Your task to perform on an android device: Clear the cart on target.com. Search for "asus zenbook" on target.com, select the first entry, add it to the cart, then select checkout. Image 0: 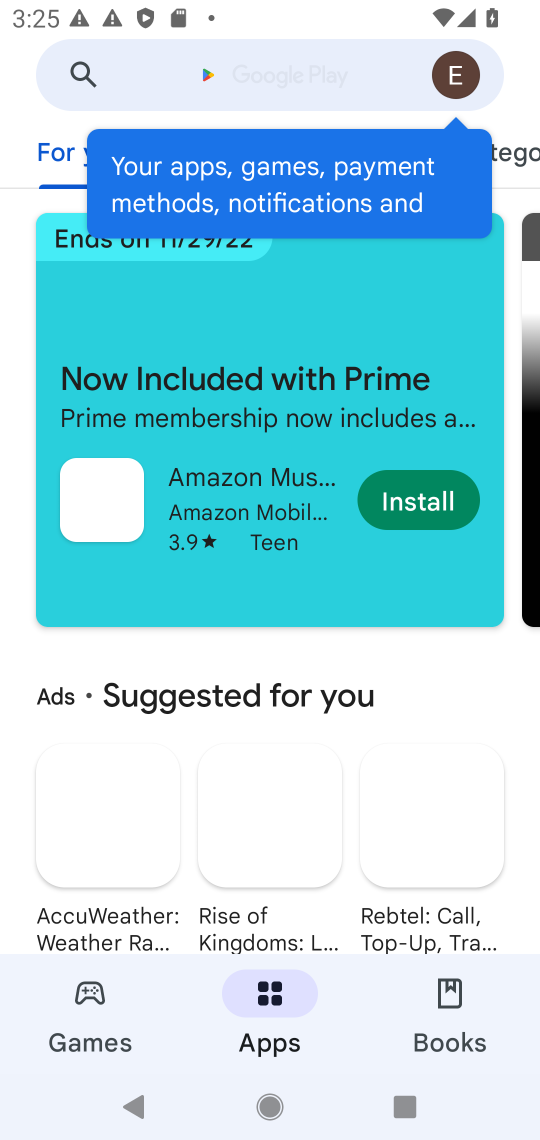
Step 0: press home button
Your task to perform on an android device: Clear the cart on target.com. Search for "asus zenbook" on target.com, select the first entry, add it to the cart, then select checkout. Image 1: 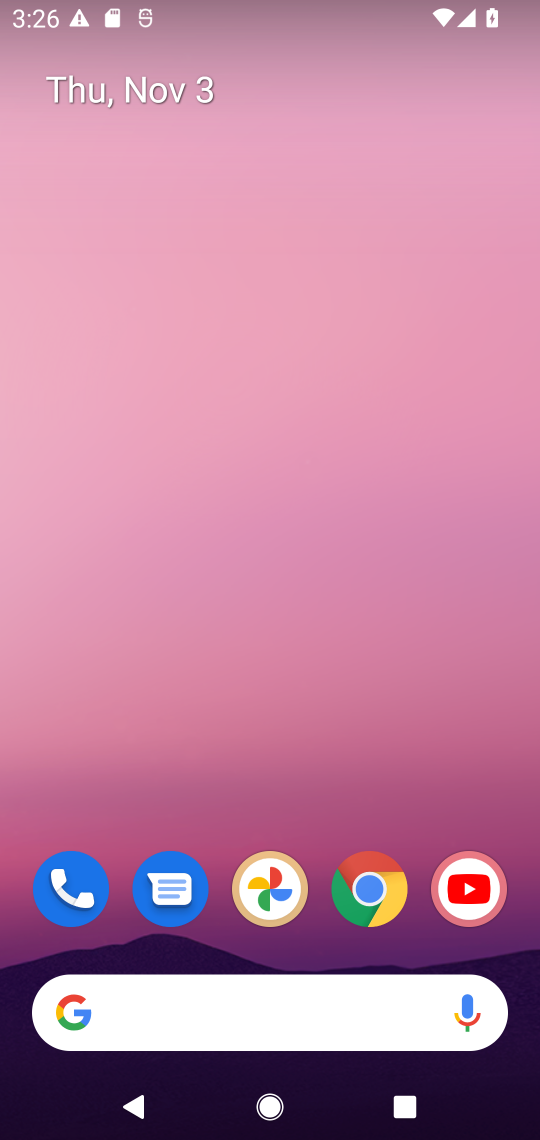
Step 1: click (370, 893)
Your task to perform on an android device: Clear the cart on target.com. Search for "asus zenbook" on target.com, select the first entry, add it to the cart, then select checkout. Image 2: 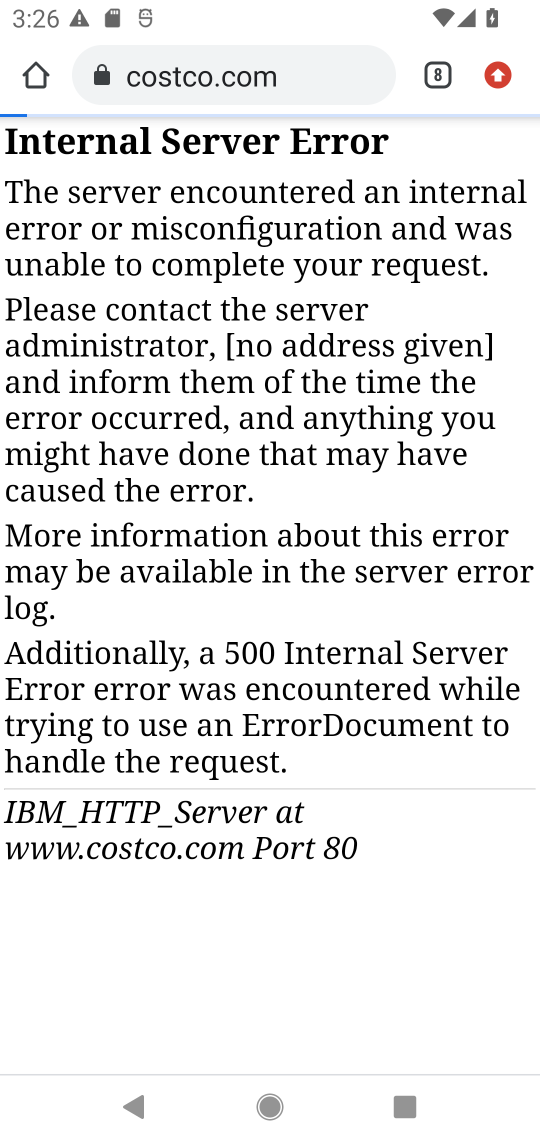
Step 2: click (435, 87)
Your task to perform on an android device: Clear the cart on target.com. Search for "asus zenbook" on target.com, select the first entry, add it to the cart, then select checkout. Image 3: 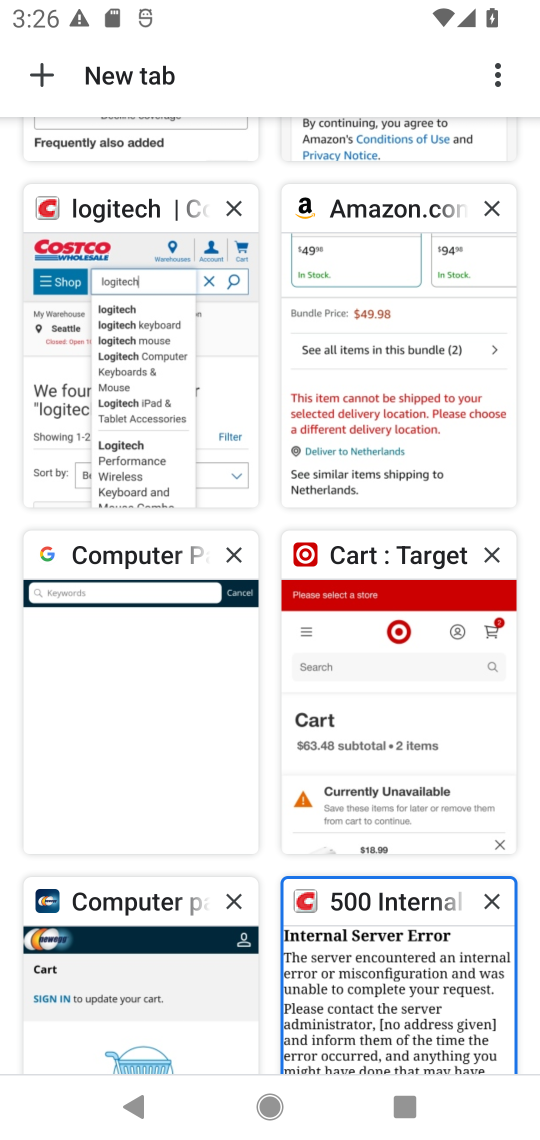
Step 3: drag from (177, 223) to (165, 1130)
Your task to perform on an android device: Clear the cart on target.com. Search for "asus zenbook" on target.com, select the first entry, add it to the cart, then select checkout. Image 4: 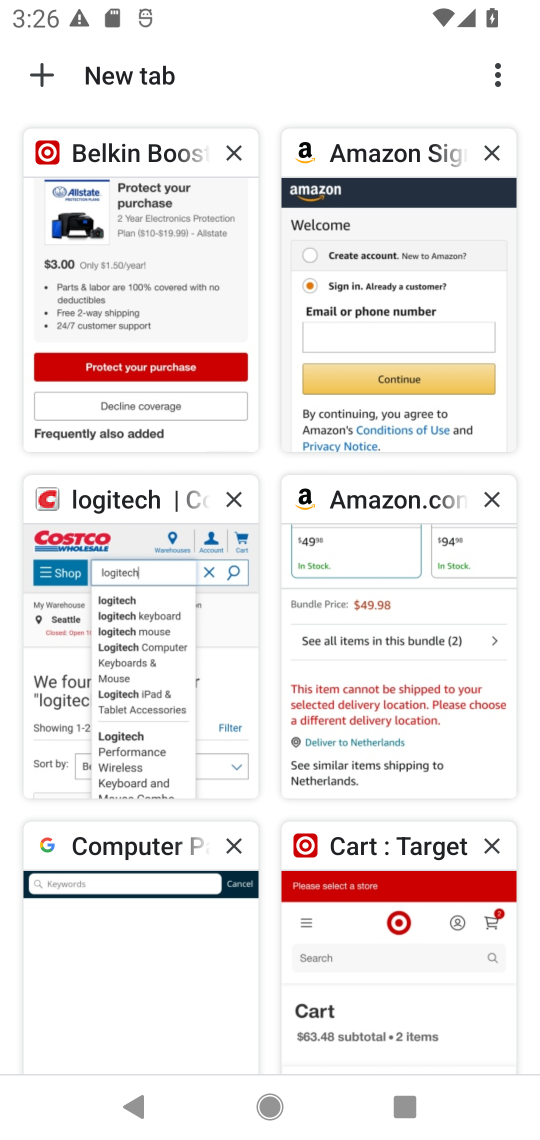
Step 4: click (43, 67)
Your task to perform on an android device: Clear the cart on target.com. Search for "asus zenbook" on target.com, select the first entry, add it to the cart, then select checkout. Image 5: 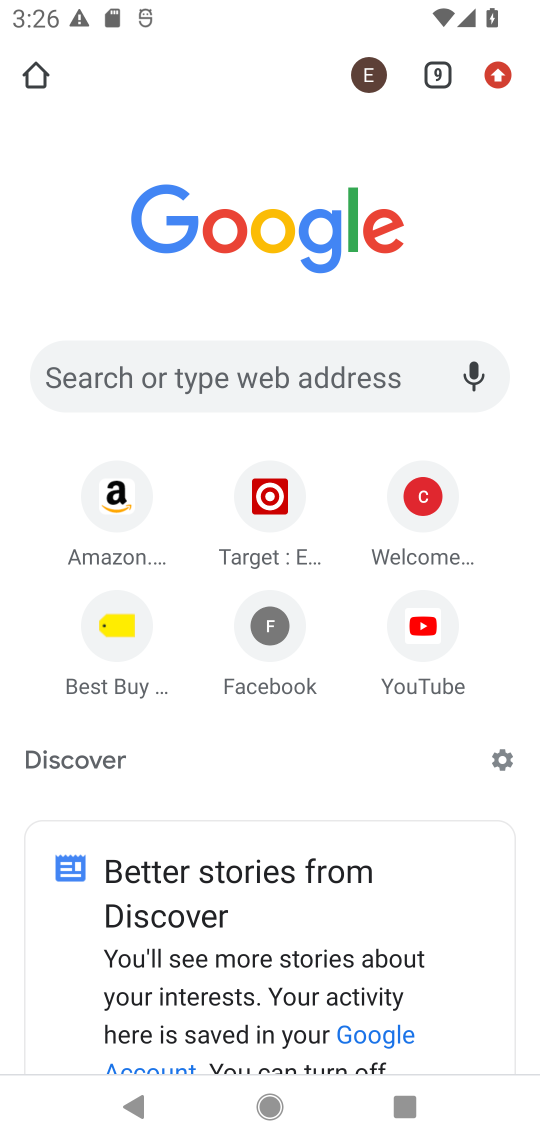
Step 5: click (223, 366)
Your task to perform on an android device: Clear the cart on target.com. Search for "asus zenbook" on target.com, select the first entry, add it to the cart, then select checkout. Image 6: 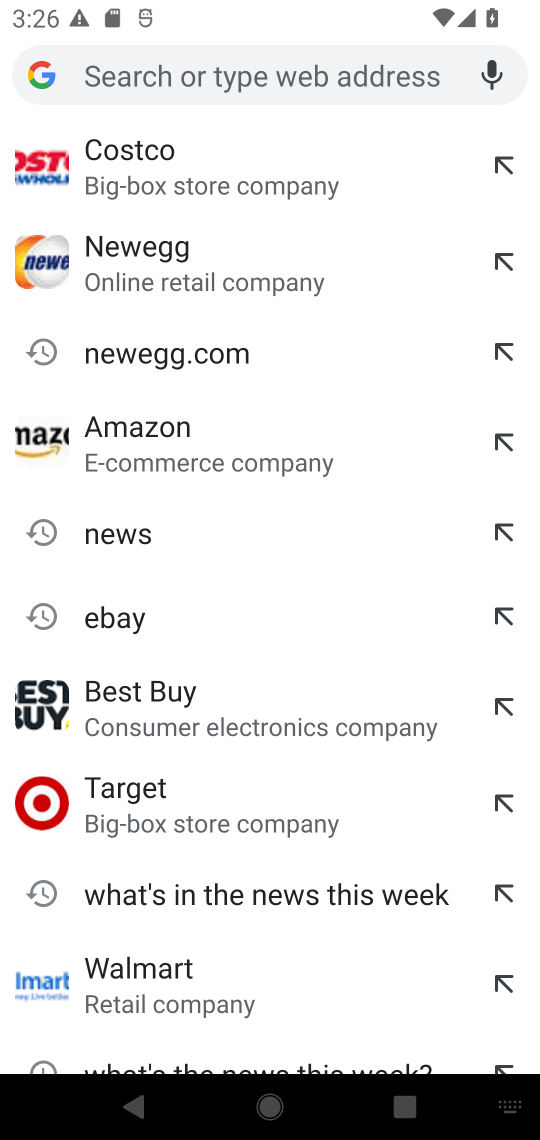
Step 6: type "target.com"
Your task to perform on an android device: Clear the cart on target.com. Search for "asus zenbook" on target.com, select the first entry, add it to the cart, then select checkout. Image 7: 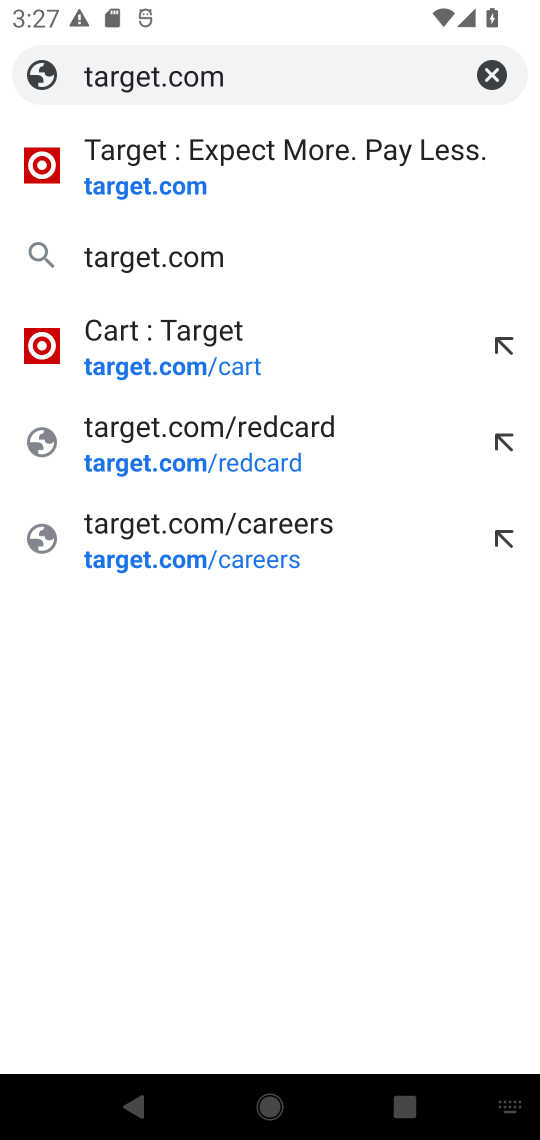
Step 7: click (141, 151)
Your task to perform on an android device: Clear the cart on target.com. Search for "asus zenbook" on target.com, select the first entry, add it to the cart, then select checkout. Image 8: 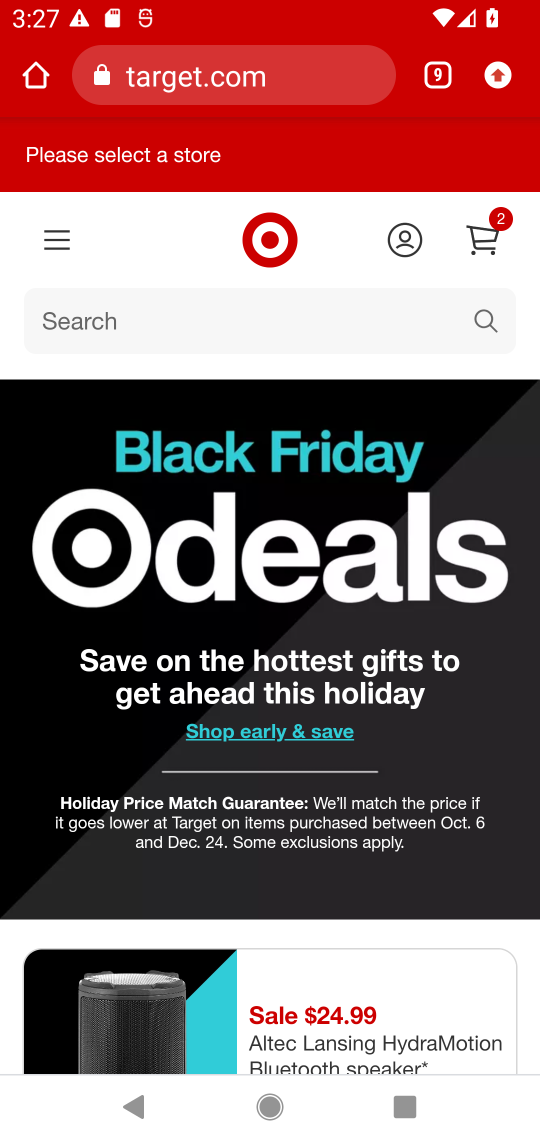
Step 8: drag from (228, 888) to (358, 310)
Your task to perform on an android device: Clear the cart on target.com. Search for "asus zenbook" on target.com, select the first entry, add it to the cart, then select checkout. Image 9: 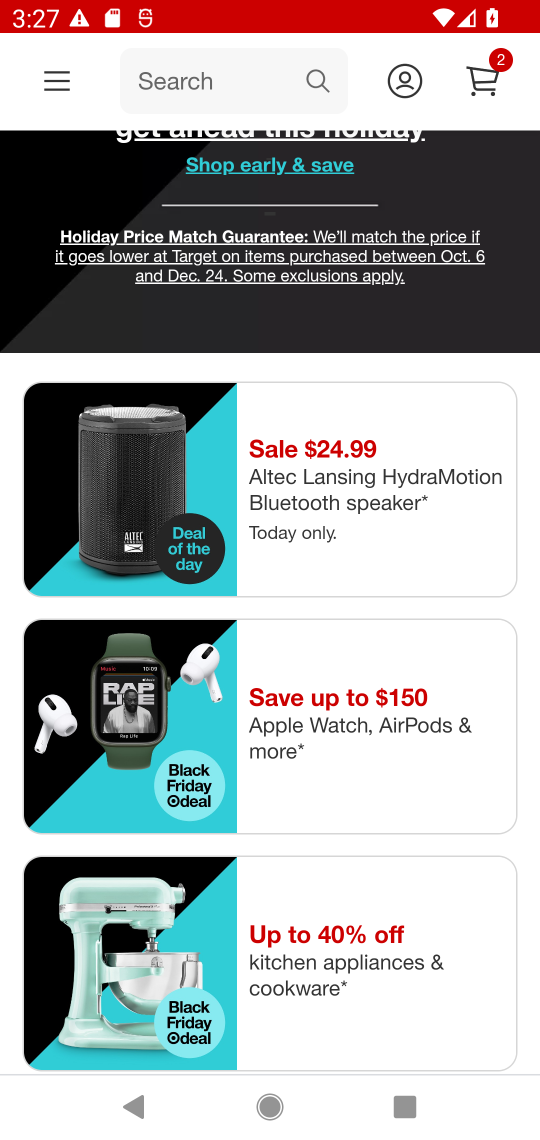
Step 9: drag from (298, 266) to (355, 1065)
Your task to perform on an android device: Clear the cart on target.com. Search for "asus zenbook" on target.com, select the first entry, add it to the cart, then select checkout. Image 10: 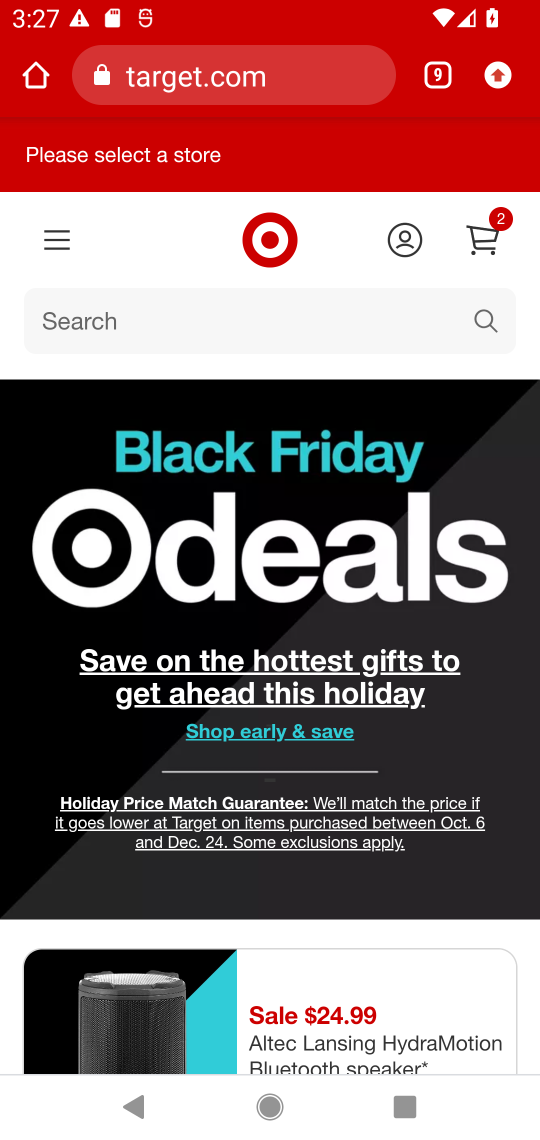
Step 10: click (184, 315)
Your task to perform on an android device: Clear the cart on target.com. Search for "asus zenbook" on target.com, select the first entry, add it to the cart, then select checkout. Image 11: 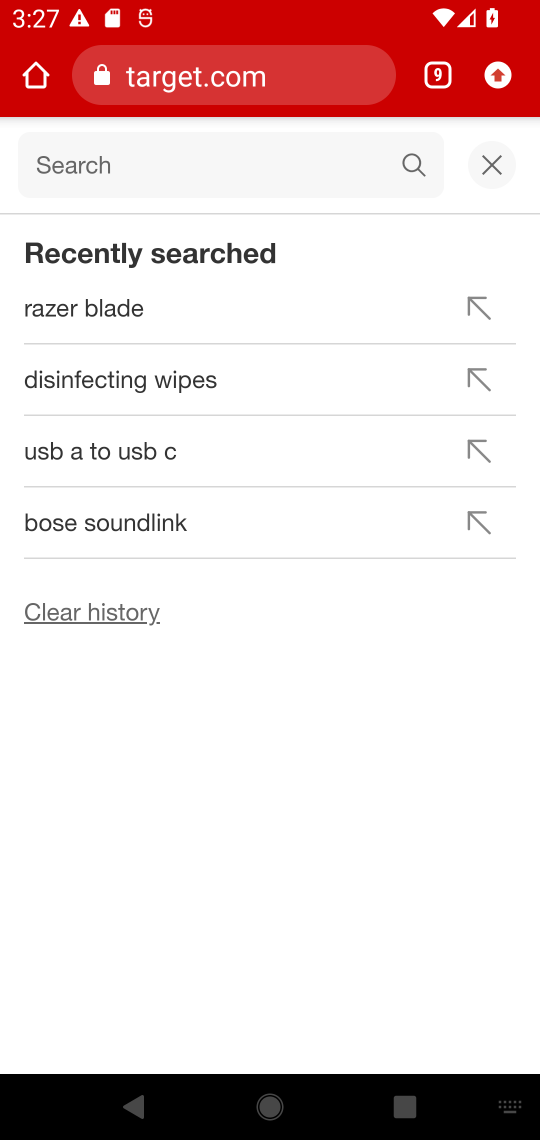
Step 11: click (76, 140)
Your task to perform on an android device: Clear the cart on target.com. Search for "asus zenbook" on target.com, select the first entry, add it to the cart, then select checkout. Image 12: 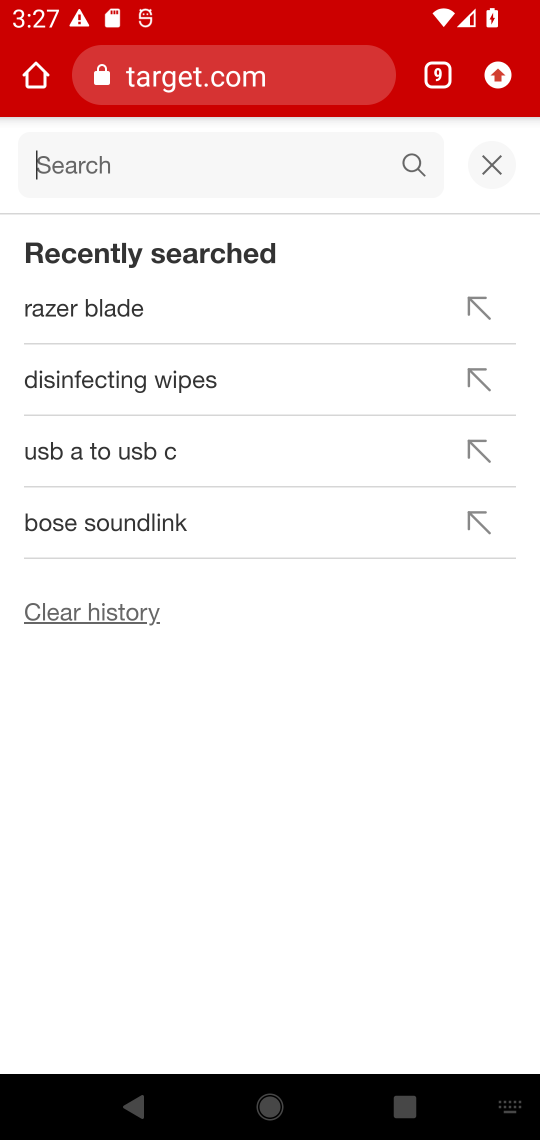
Step 12: type "asus zenbook"
Your task to perform on an android device: Clear the cart on target.com. Search for "asus zenbook" on target.com, select the first entry, add it to the cart, then select checkout. Image 13: 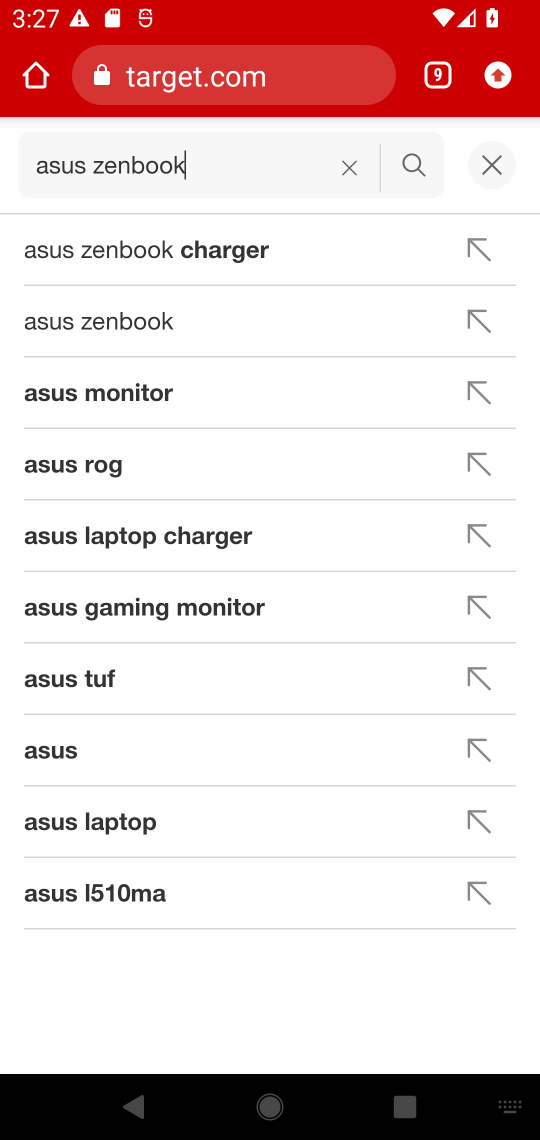
Step 13: click (213, 310)
Your task to perform on an android device: Clear the cart on target.com. Search for "asus zenbook" on target.com, select the first entry, add it to the cart, then select checkout. Image 14: 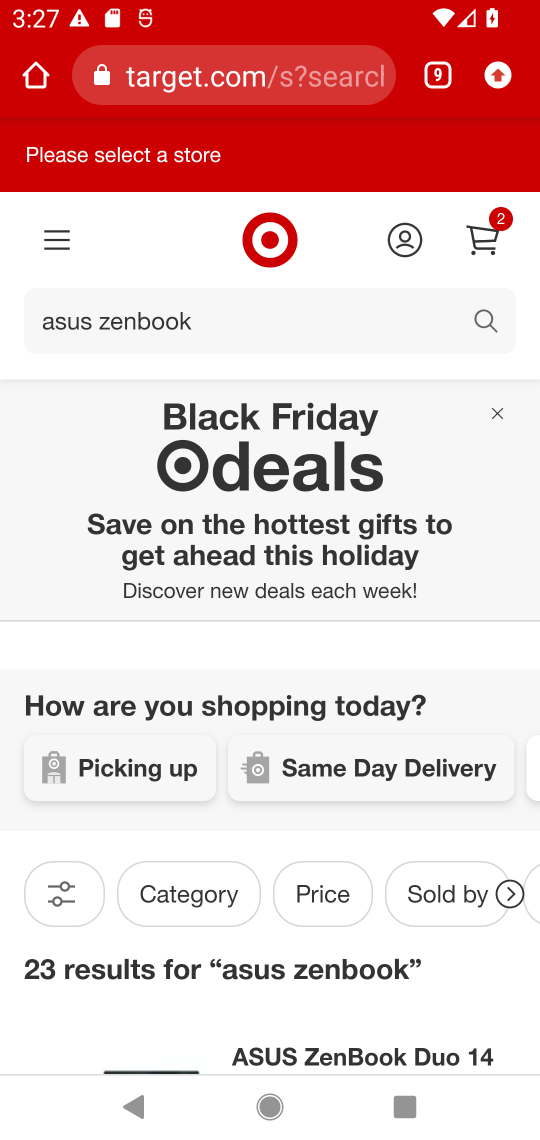
Step 14: drag from (302, 949) to (408, 285)
Your task to perform on an android device: Clear the cart on target.com. Search for "asus zenbook" on target.com, select the first entry, add it to the cart, then select checkout. Image 15: 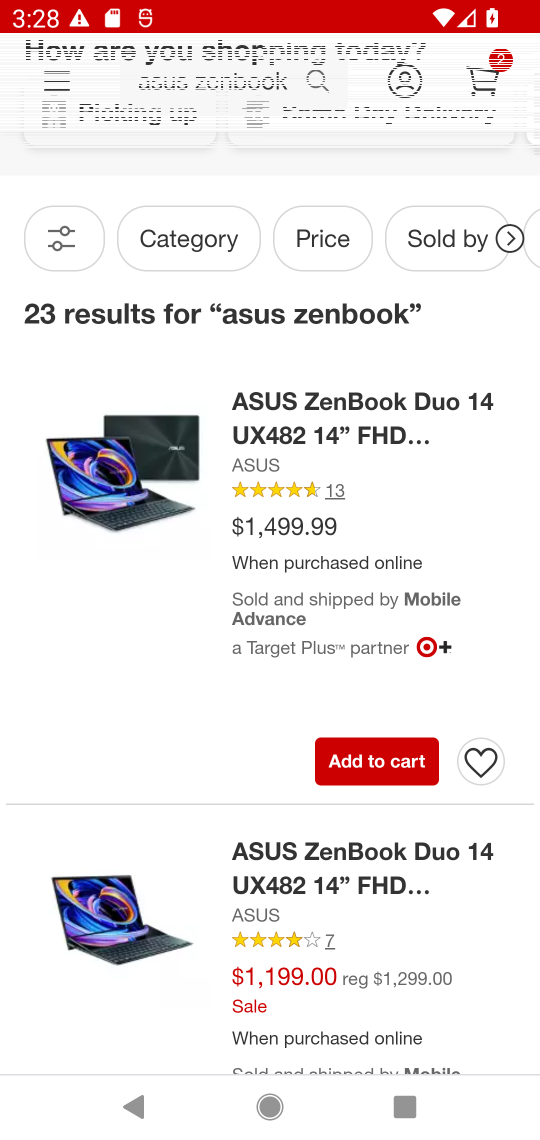
Step 15: click (368, 767)
Your task to perform on an android device: Clear the cart on target.com. Search for "asus zenbook" on target.com, select the first entry, add it to the cart, then select checkout. Image 16: 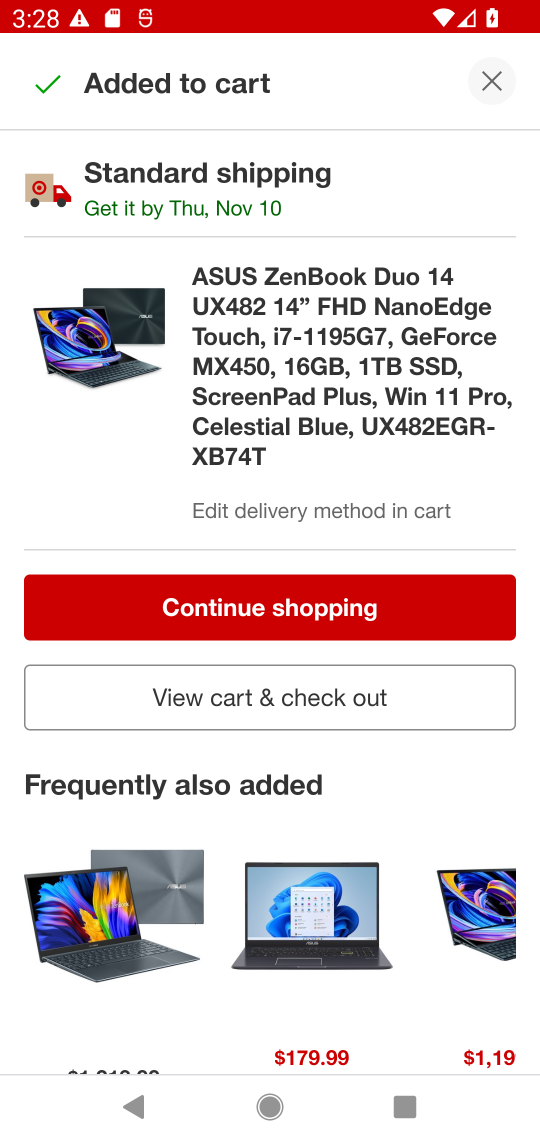
Step 16: click (296, 694)
Your task to perform on an android device: Clear the cart on target.com. Search for "asus zenbook" on target.com, select the first entry, add it to the cart, then select checkout. Image 17: 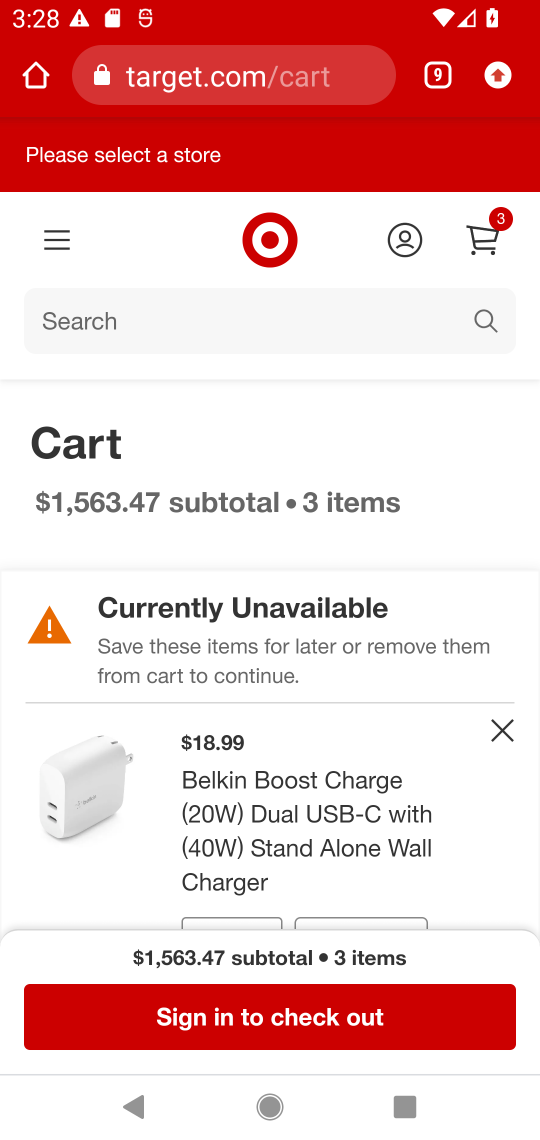
Step 17: task complete